Your task to perform on an android device: toggle pop-ups in chrome Image 0: 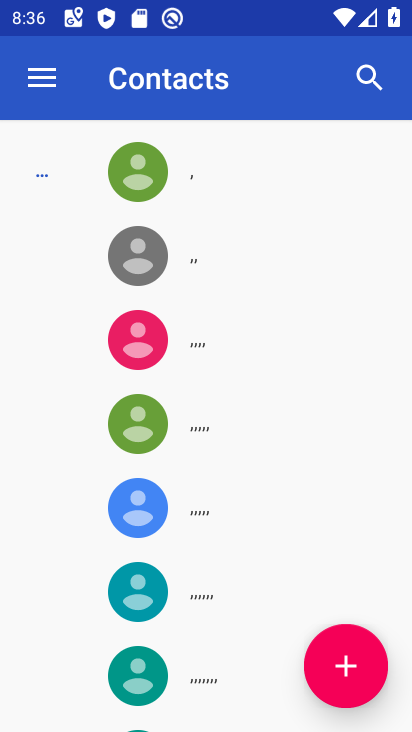
Step 0: press home button
Your task to perform on an android device: toggle pop-ups in chrome Image 1: 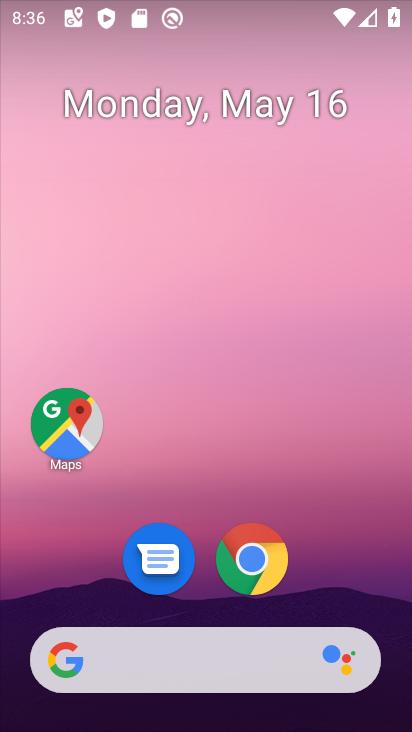
Step 1: click (254, 552)
Your task to perform on an android device: toggle pop-ups in chrome Image 2: 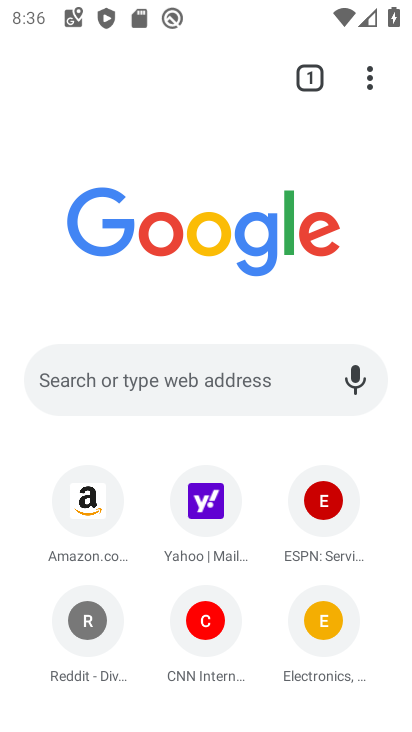
Step 2: click (361, 77)
Your task to perform on an android device: toggle pop-ups in chrome Image 3: 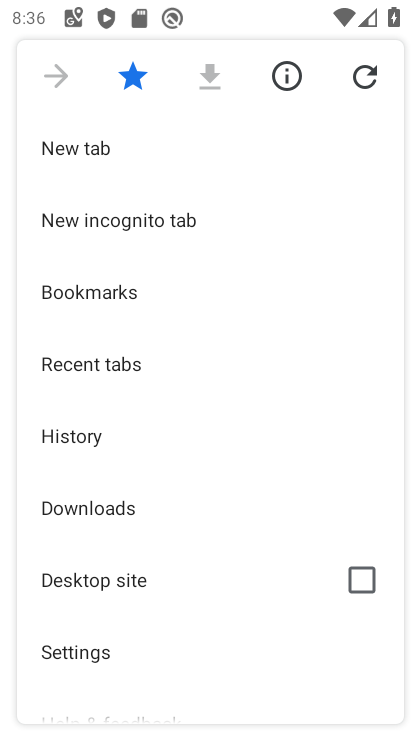
Step 3: click (134, 646)
Your task to perform on an android device: toggle pop-ups in chrome Image 4: 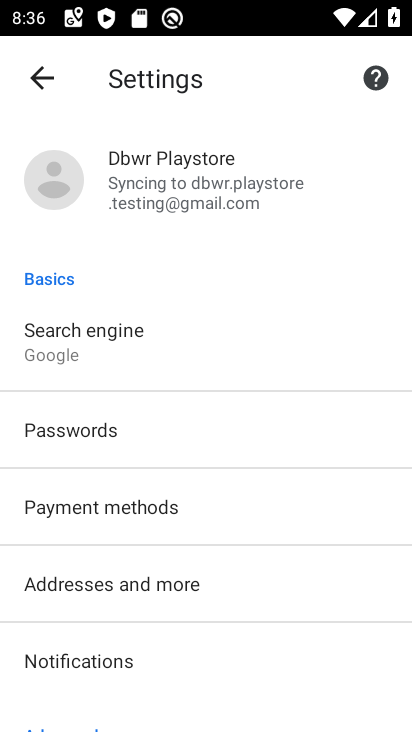
Step 4: drag from (138, 628) to (124, 557)
Your task to perform on an android device: toggle pop-ups in chrome Image 5: 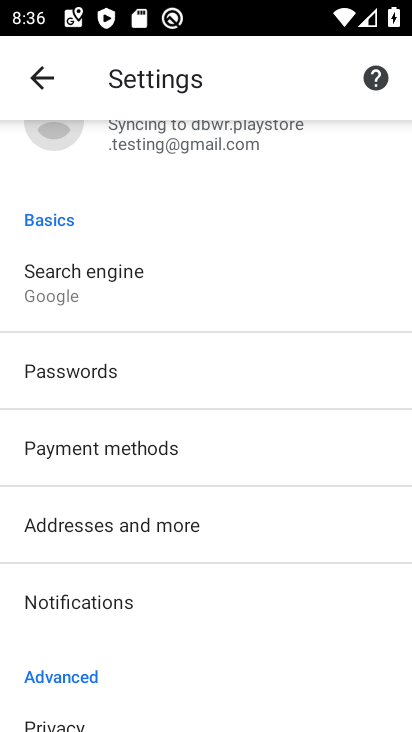
Step 5: drag from (128, 616) to (110, 530)
Your task to perform on an android device: toggle pop-ups in chrome Image 6: 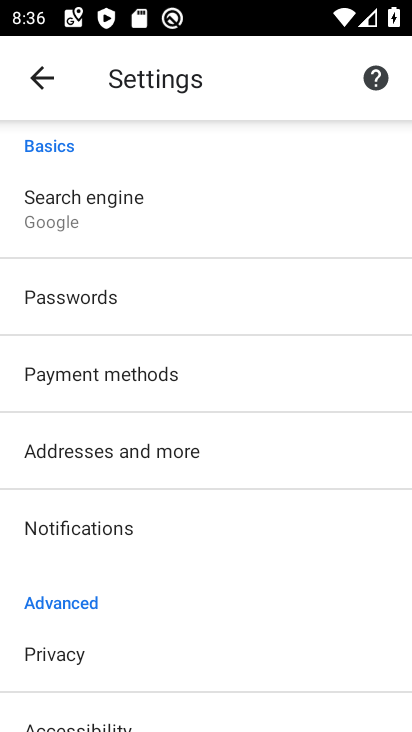
Step 6: drag from (124, 596) to (115, 539)
Your task to perform on an android device: toggle pop-ups in chrome Image 7: 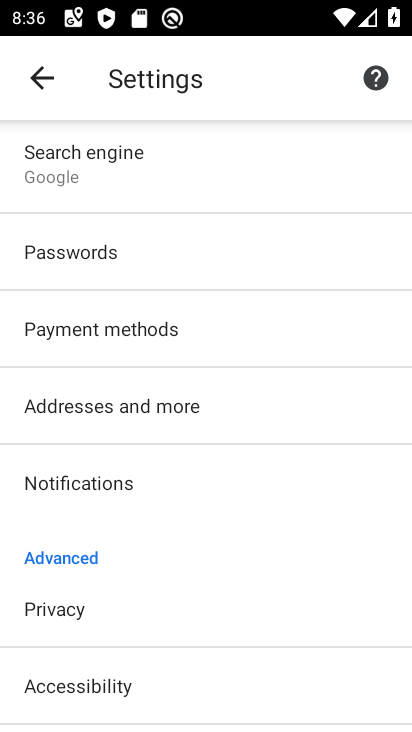
Step 7: drag from (142, 602) to (120, 503)
Your task to perform on an android device: toggle pop-ups in chrome Image 8: 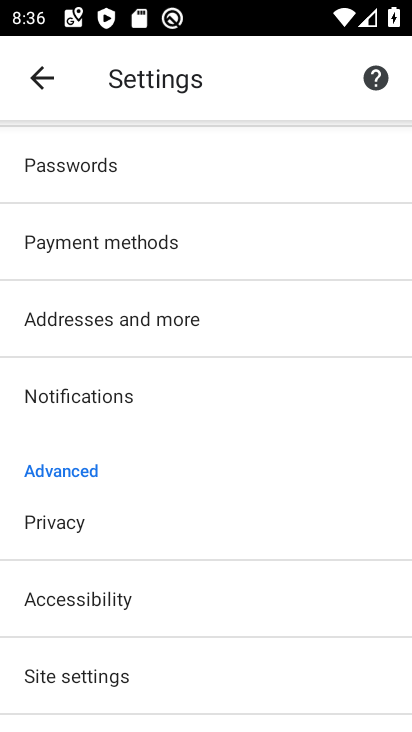
Step 8: click (93, 659)
Your task to perform on an android device: toggle pop-ups in chrome Image 9: 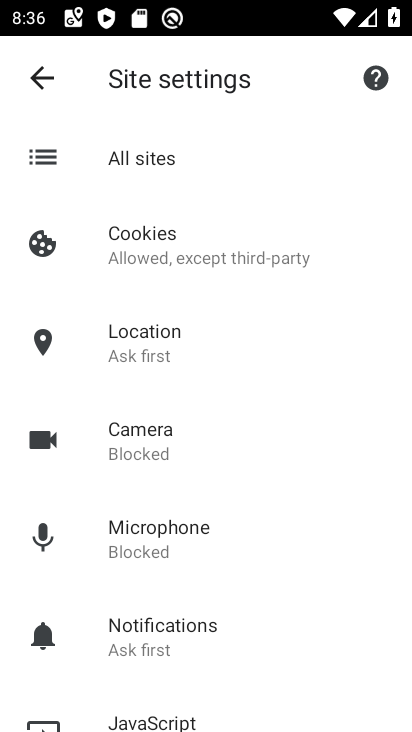
Step 9: drag from (143, 690) to (124, 630)
Your task to perform on an android device: toggle pop-ups in chrome Image 10: 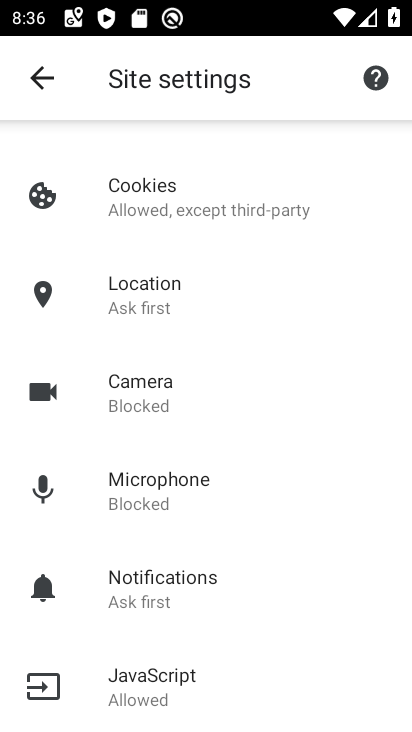
Step 10: drag from (122, 708) to (102, 629)
Your task to perform on an android device: toggle pop-ups in chrome Image 11: 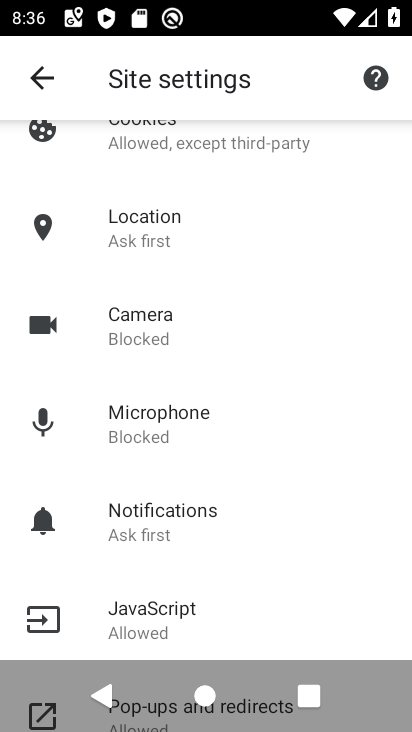
Step 11: drag from (208, 631) to (195, 565)
Your task to perform on an android device: toggle pop-ups in chrome Image 12: 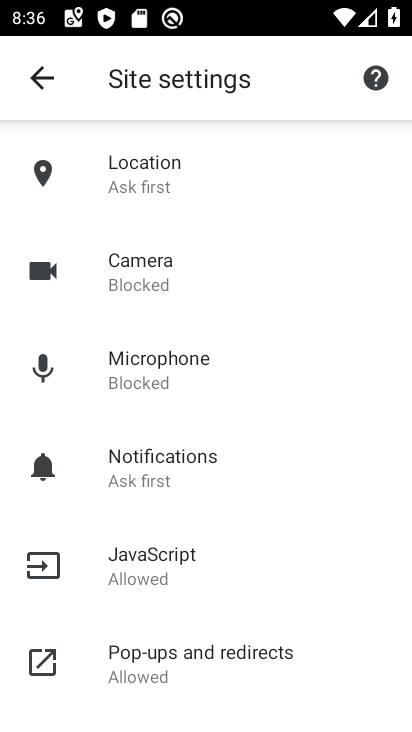
Step 12: click (188, 645)
Your task to perform on an android device: toggle pop-ups in chrome Image 13: 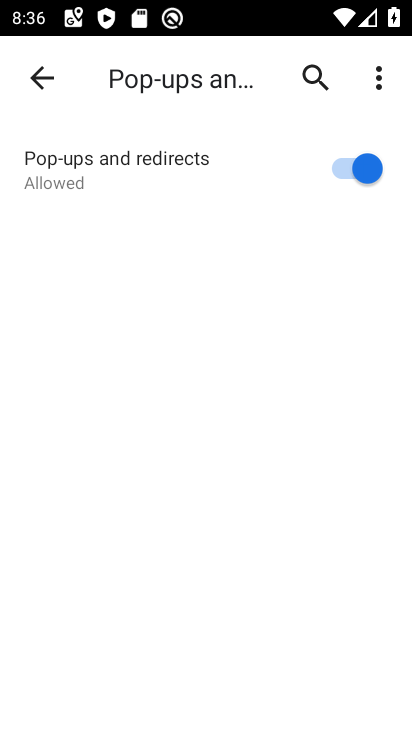
Step 13: click (340, 176)
Your task to perform on an android device: toggle pop-ups in chrome Image 14: 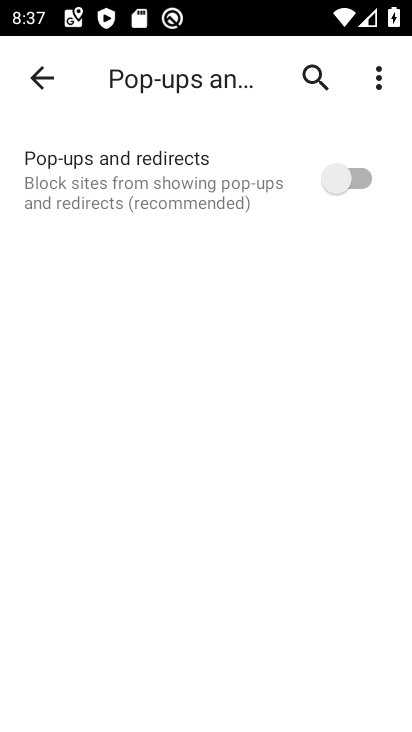
Step 14: task complete